Your task to perform on an android device: Do I have any events tomorrow? Image 0: 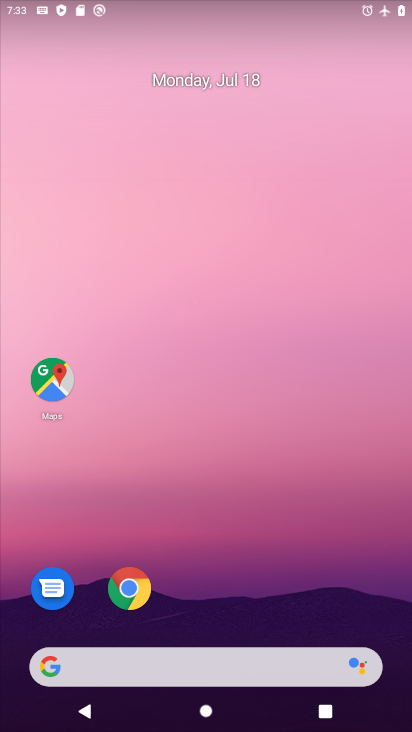
Step 0: drag from (214, 646) to (181, 281)
Your task to perform on an android device: Do I have any events tomorrow? Image 1: 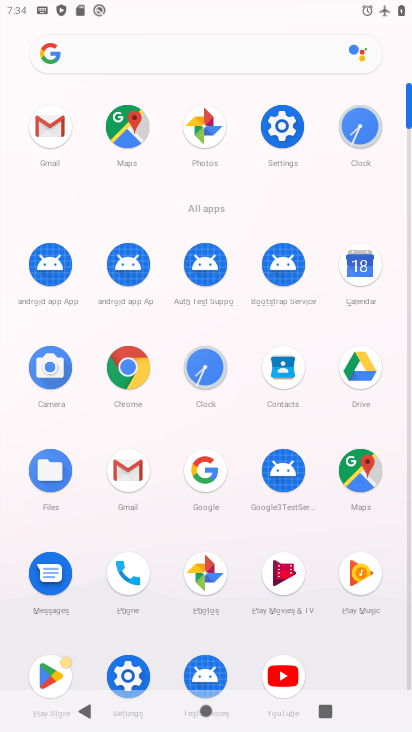
Step 1: click (355, 280)
Your task to perform on an android device: Do I have any events tomorrow? Image 2: 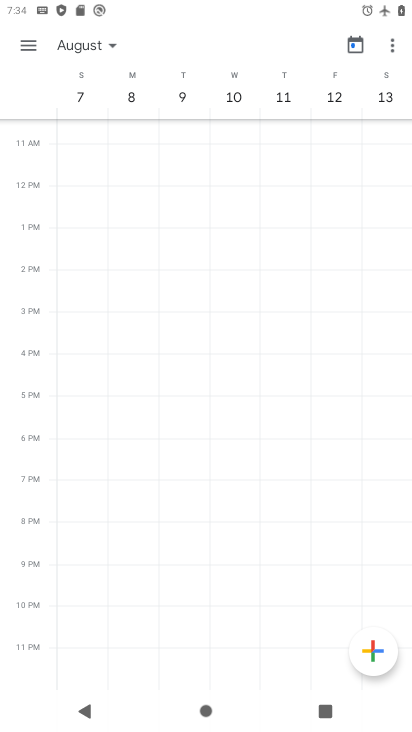
Step 2: click (80, 41)
Your task to perform on an android device: Do I have any events tomorrow? Image 3: 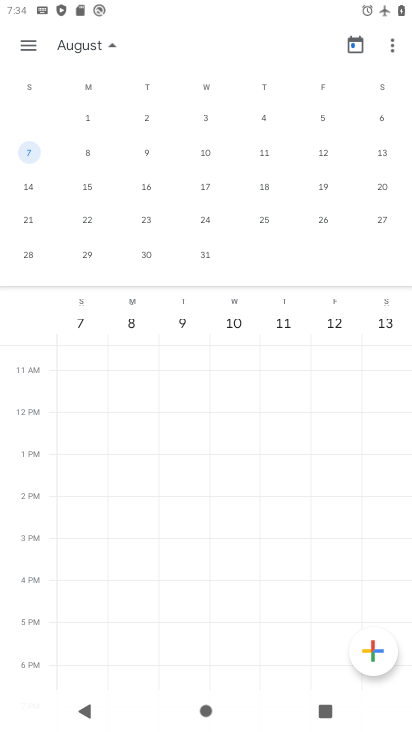
Step 3: drag from (66, 211) to (392, 293)
Your task to perform on an android device: Do I have any events tomorrow? Image 4: 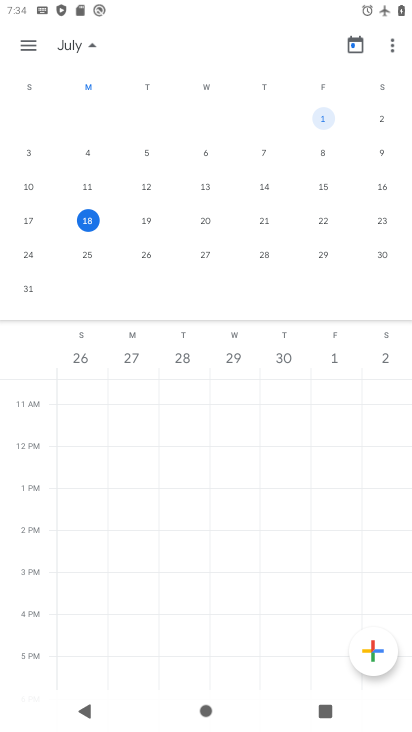
Step 4: click (86, 225)
Your task to perform on an android device: Do I have any events tomorrow? Image 5: 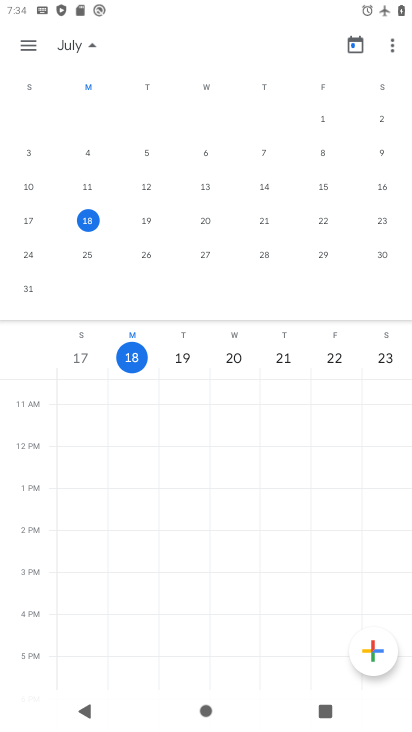
Step 5: click (23, 44)
Your task to perform on an android device: Do I have any events tomorrow? Image 6: 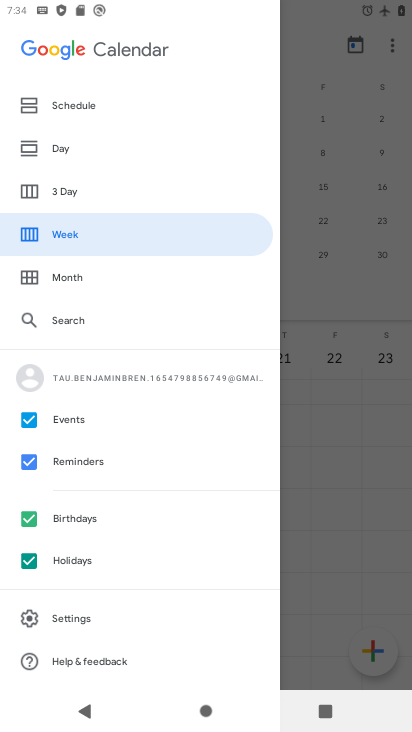
Step 6: click (44, 451)
Your task to perform on an android device: Do I have any events tomorrow? Image 7: 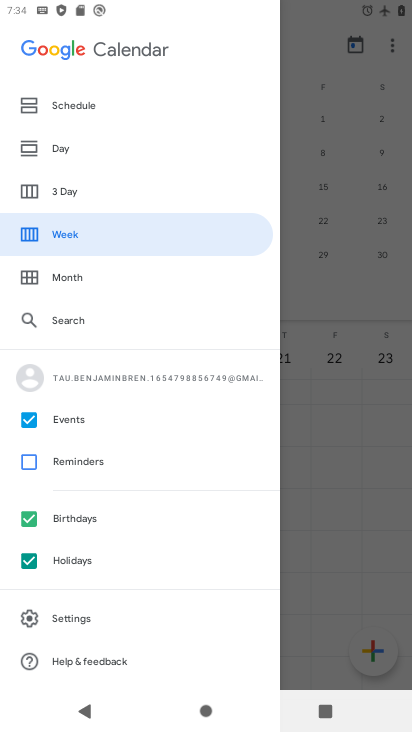
Step 7: click (46, 523)
Your task to perform on an android device: Do I have any events tomorrow? Image 8: 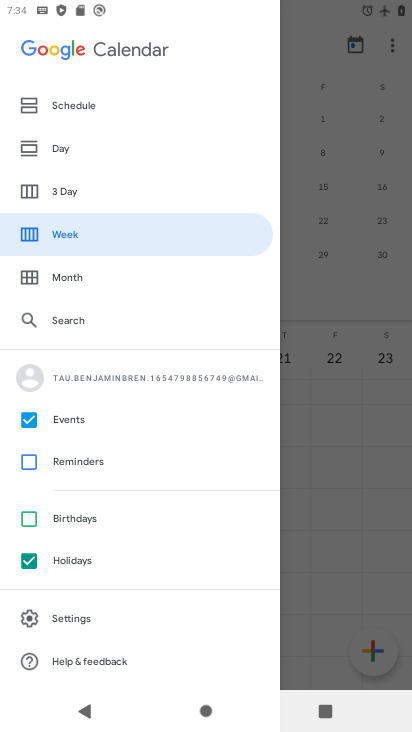
Step 8: click (55, 569)
Your task to perform on an android device: Do I have any events tomorrow? Image 9: 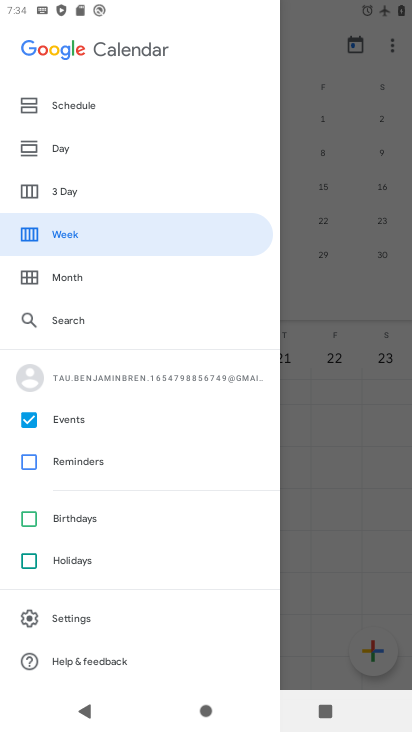
Step 9: click (72, 189)
Your task to perform on an android device: Do I have any events tomorrow? Image 10: 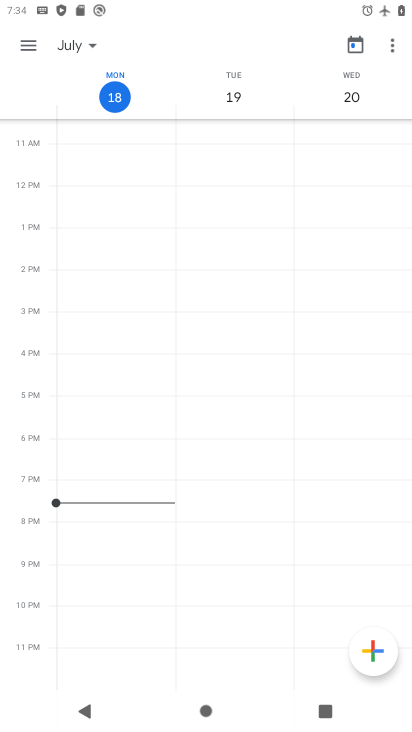
Step 10: task complete